Your task to perform on an android device: see creations saved in the google photos Image 0: 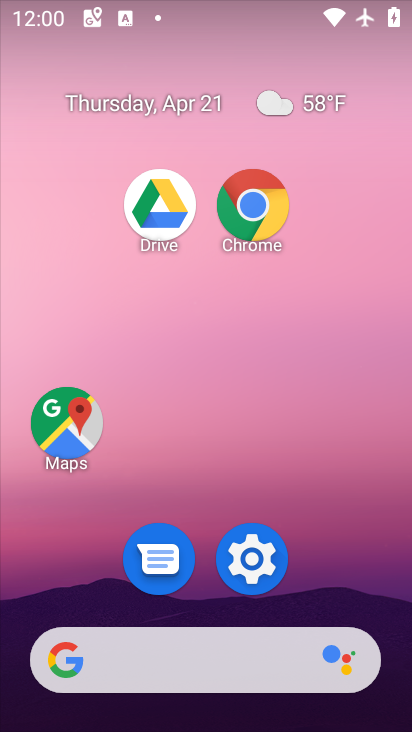
Step 0: drag from (309, 596) to (329, 25)
Your task to perform on an android device: see creations saved in the google photos Image 1: 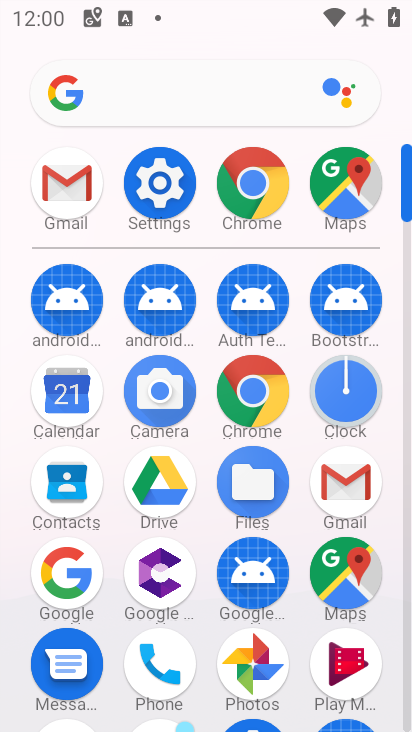
Step 1: click (240, 663)
Your task to perform on an android device: see creations saved in the google photos Image 2: 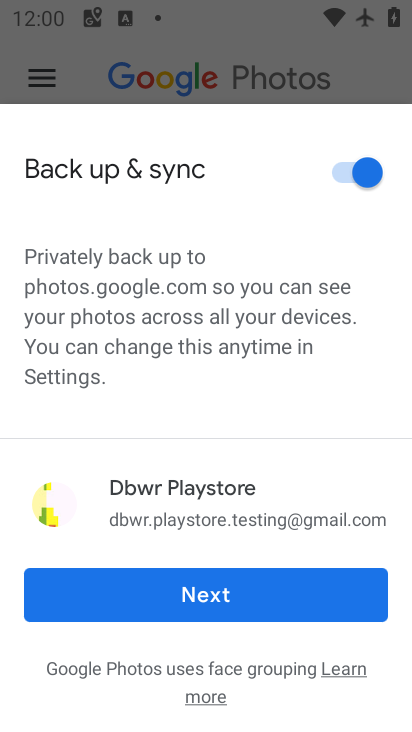
Step 2: click (230, 588)
Your task to perform on an android device: see creations saved in the google photos Image 3: 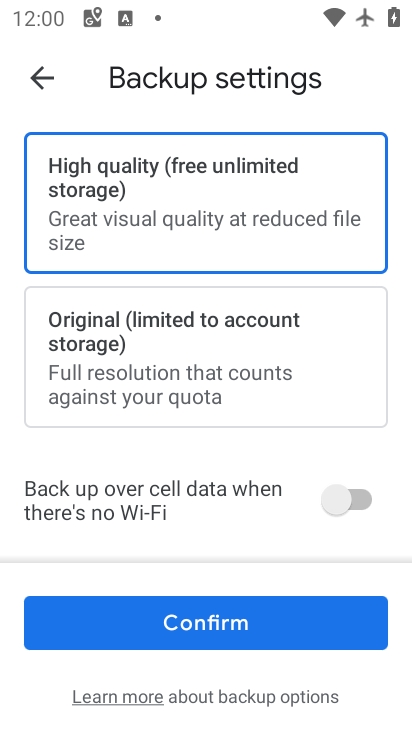
Step 3: drag from (275, 593) to (311, 130)
Your task to perform on an android device: see creations saved in the google photos Image 4: 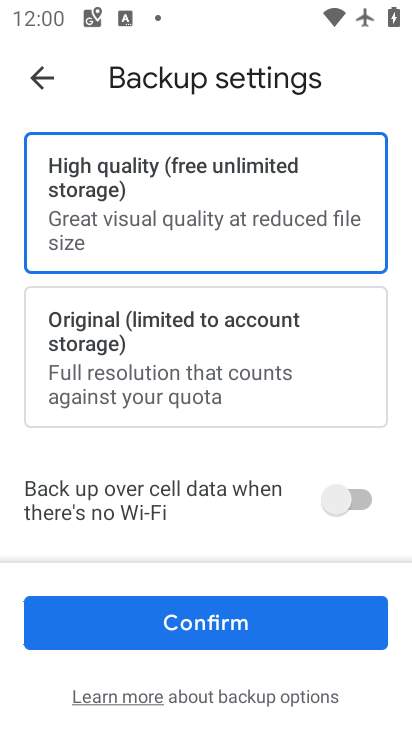
Step 4: press back button
Your task to perform on an android device: see creations saved in the google photos Image 5: 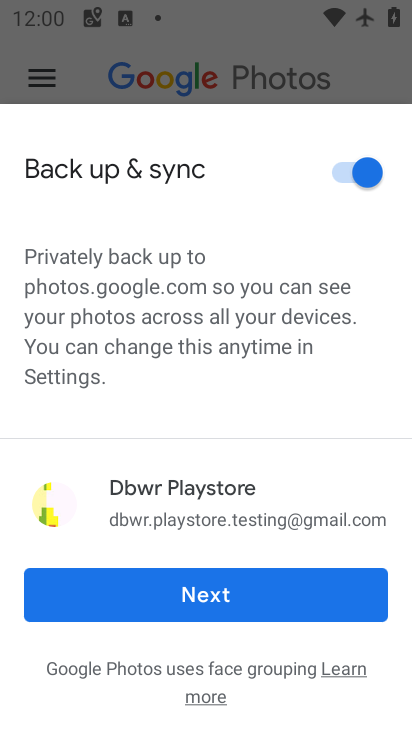
Step 5: click (201, 592)
Your task to perform on an android device: see creations saved in the google photos Image 6: 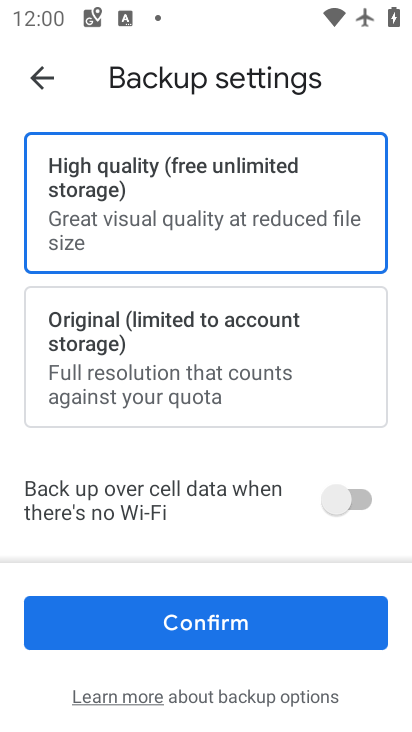
Step 6: press back button
Your task to perform on an android device: see creations saved in the google photos Image 7: 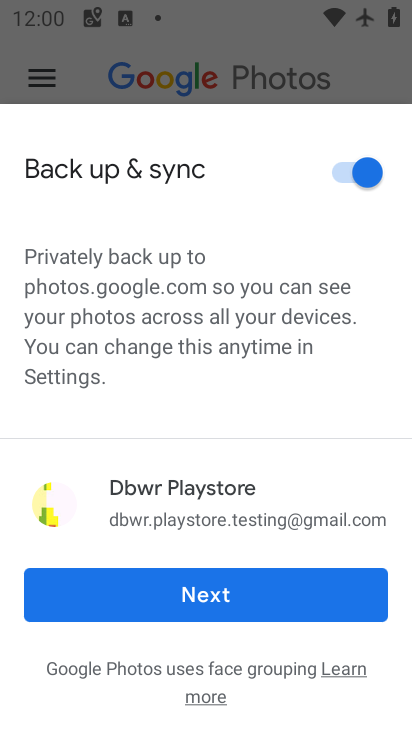
Step 7: press back button
Your task to perform on an android device: see creations saved in the google photos Image 8: 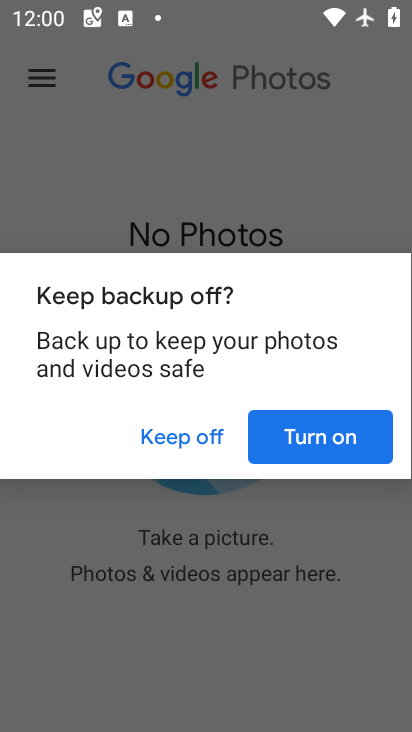
Step 8: click (194, 426)
Your task to perform on an android device: see creations saved in the google photos Image 9: 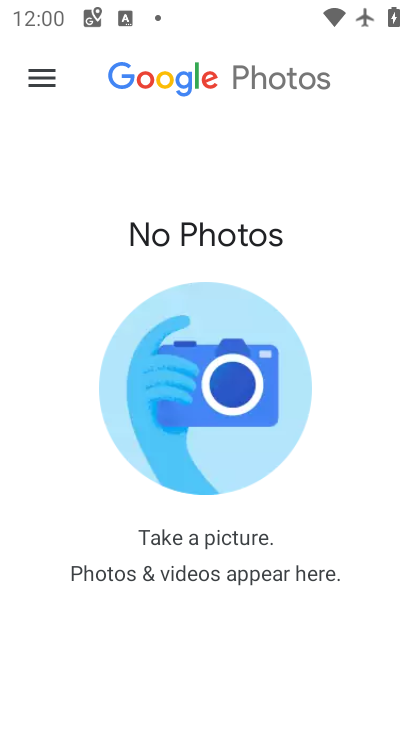
Step 9: task complete